Your task to perform on an android device: Show the shopping cart on newegg.com. Image 0: 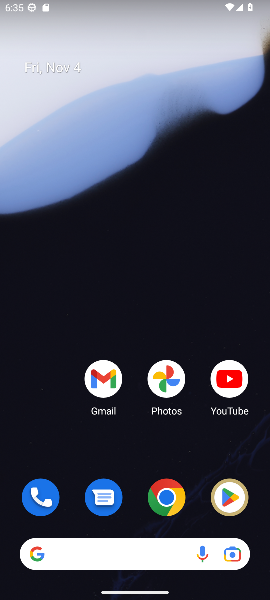
Step 0: click (164, 498)
Your task to perform on an android device: Show the shopping cart on newegg.com. Image 1: 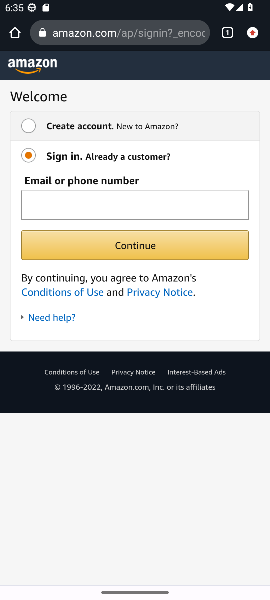
Step 1: click (119, 35)
Your task to perform on an android device: Show the shopping cart on newegg.com. Image 2: 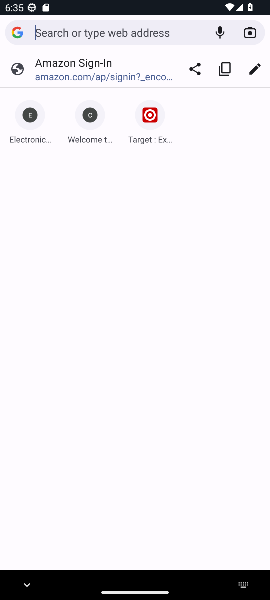
Step 2: type " newegg.com"
Your task to perform on an android device: Show the shopping cart on newegg.com. Image 3: 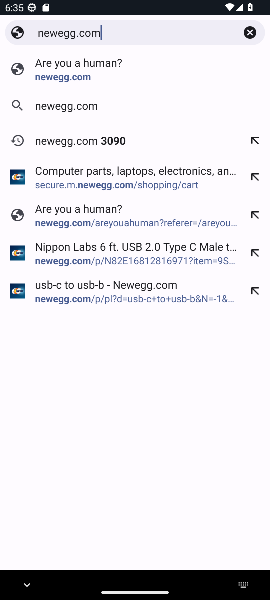
Step 3: click (69, 110)
Your task to perform on an android device: Show the shopping cart on newegg.com. Image 4: 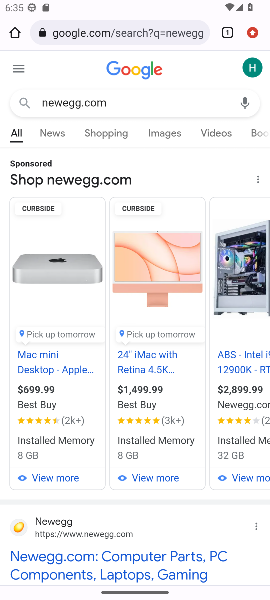
Step 4: drag from (160, 484) to (152, 266)
Your task to perform on an android device: Show the shopping cart on newegg.com. Image 5: 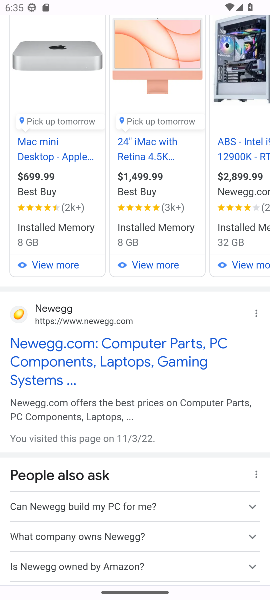
Step 5: click (58, 329)
Your task to perform on an android device: Show the shopping cart on newegg.com. Image 6: 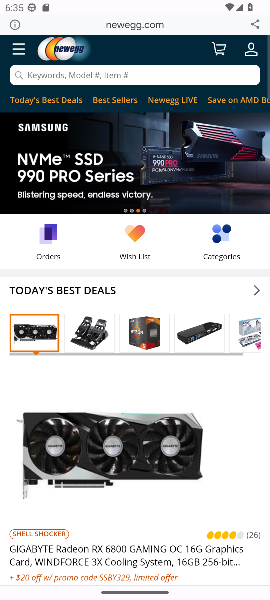
Step 6: click (218, 54)
Your task to perform on an android device: Show the shopping cart on newegg.com. Image 7: 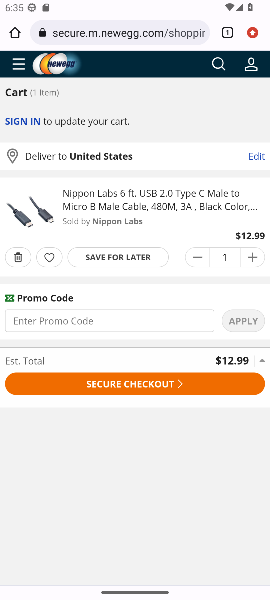
Step 7: task complete